Your task to perform on an android device: Turn off the flashlight Image 0: 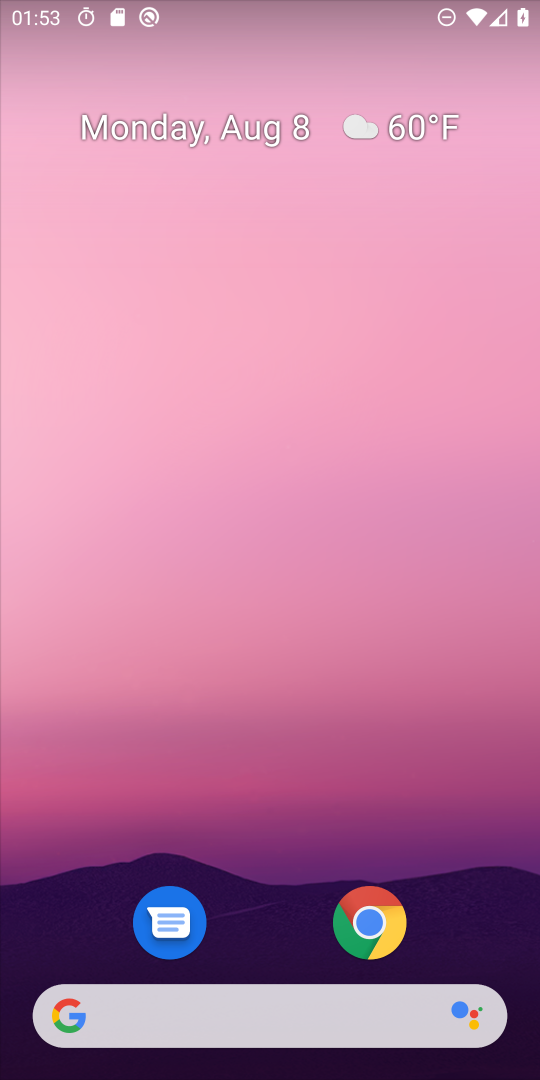
Step 0: drag from (290, 780) to (400, 114)
Your task to perform on an android device: Turn off the flashlight Image 1: 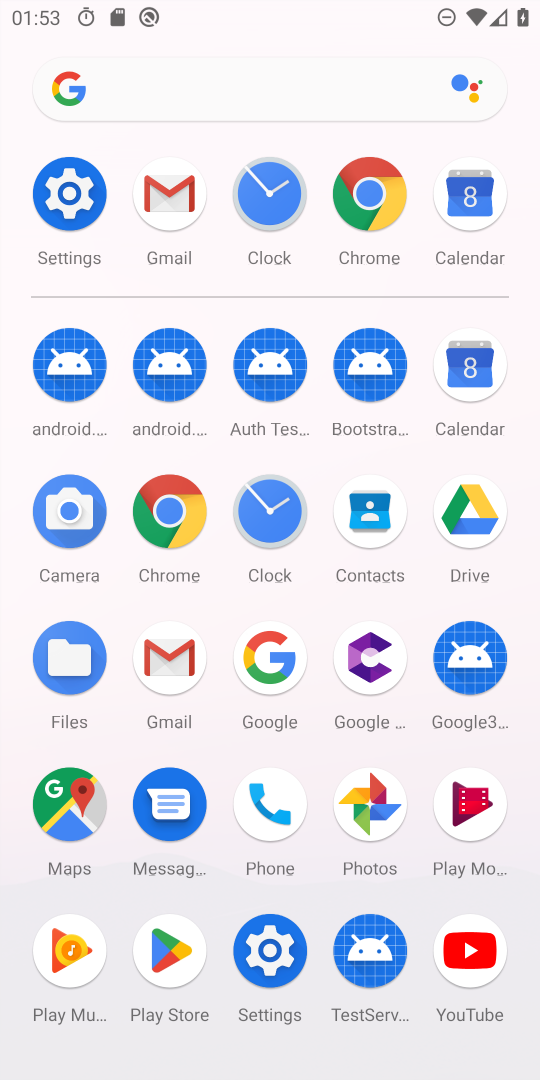
Step 1: click (74, 196)
Your task to perform on an android device: Turn off the flashlight Image 2: 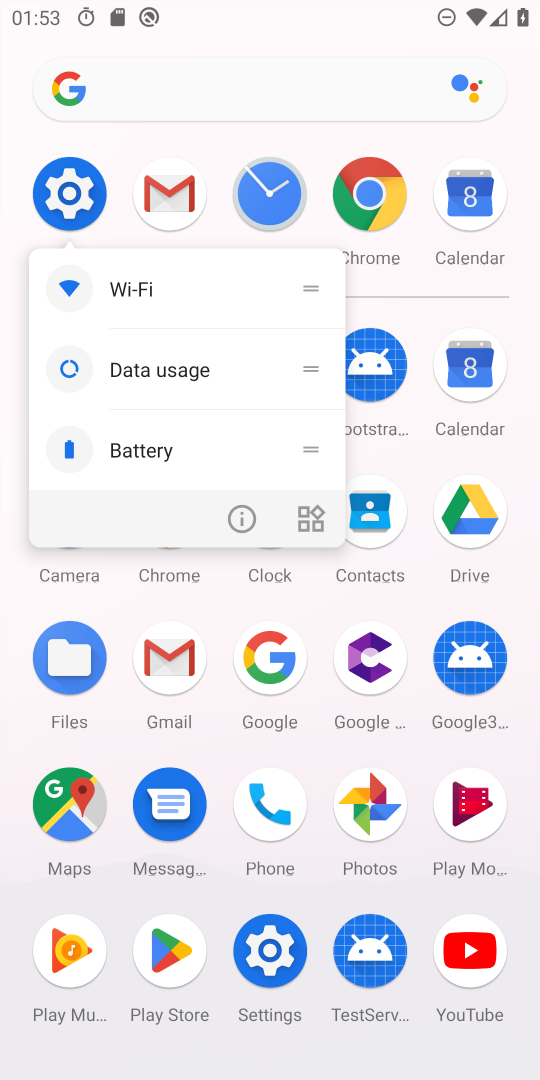
Step 2: click (74, 193)
Your task to perform on an android device: Turn off the flashlight Image 3: 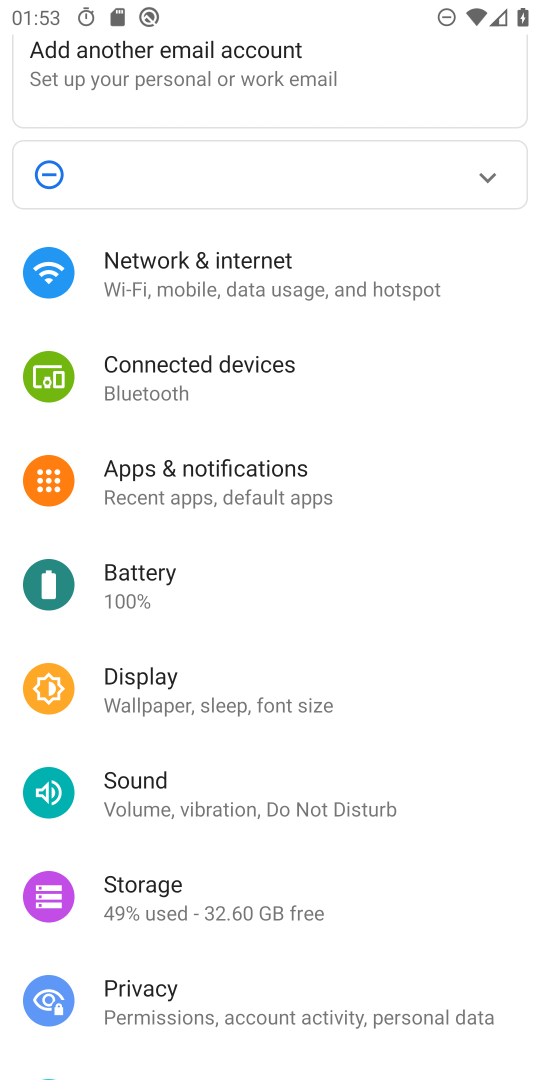
Step 3: click (228, 703)
Your task to perform on an android device: Turn off the flashlight Image 4: 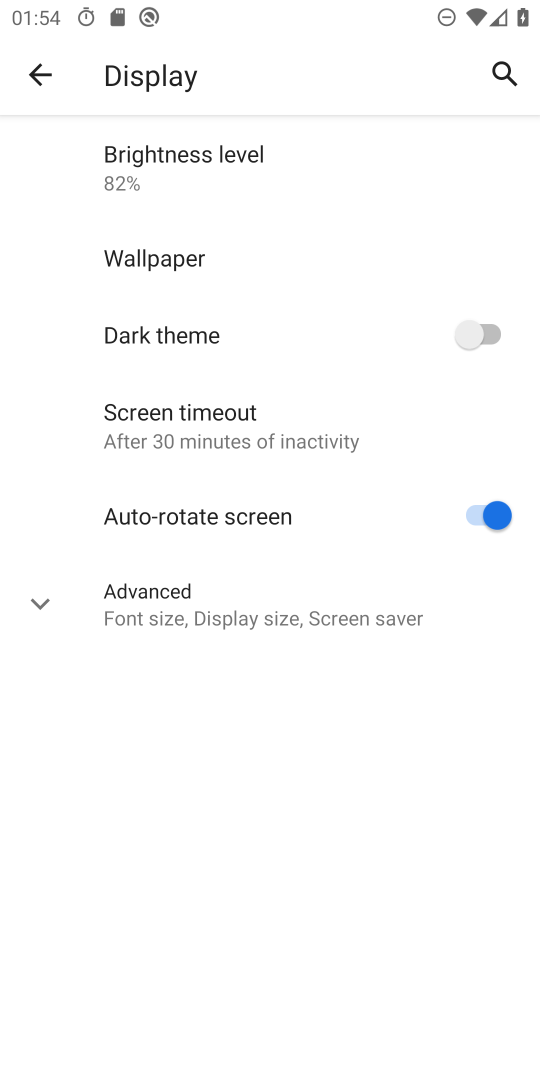
Step 4: click (148, 421)
Your task to perform on an android device: Turn off the flashlight Image 5: 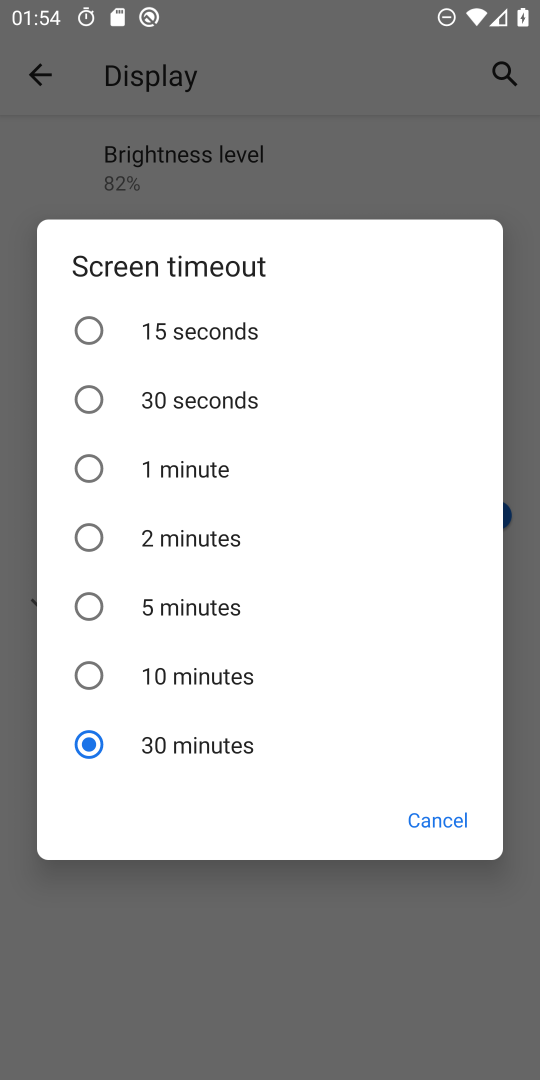
Step 5: task complete